Your task to perform on an android device: Open settings Image 0: 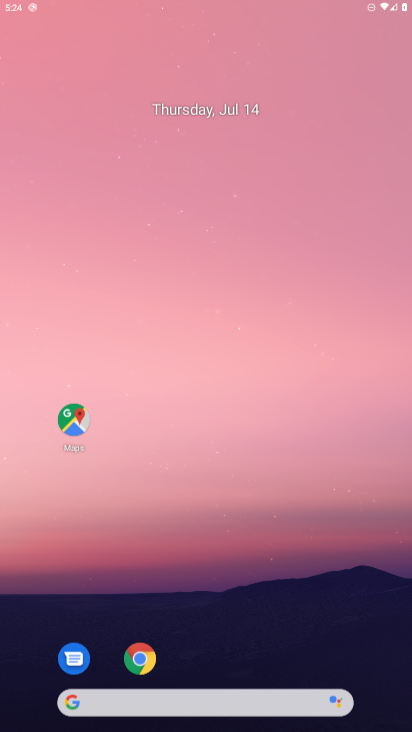
Step 0: press home button
Your task to perform on an android device: Open settings Image 1: 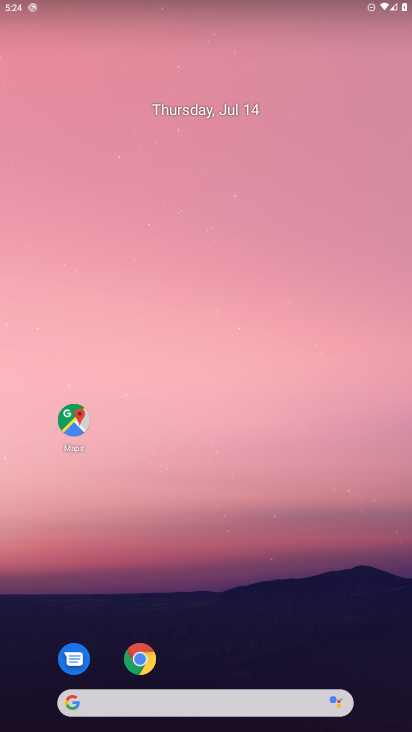
Step 1: drag from (227, 671) to (265, 6)
Your task to perform on an android device: Open settings Image 2: 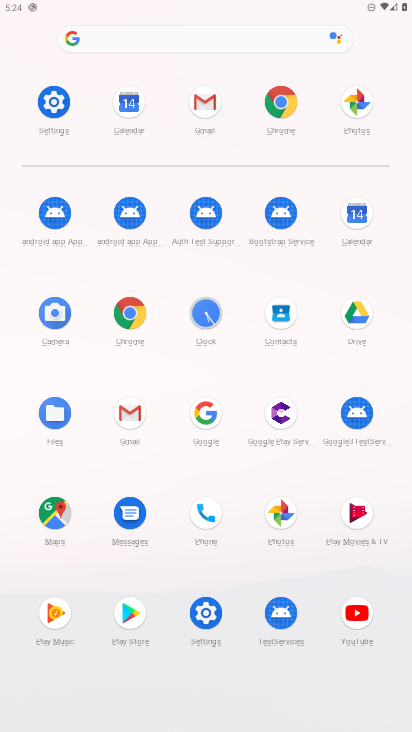
Step 2: click (58, 92)
Your task to perform on an android device: Open settings Image 3: 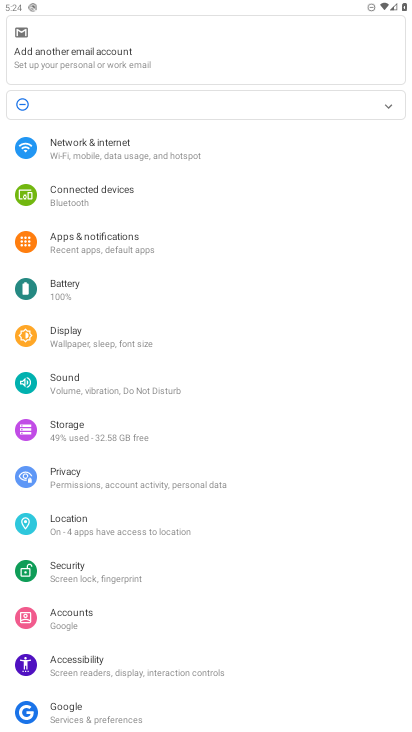
Step 3: task complete